Your task to perform on an android device: Add "logitech g pro" to the cart on costco.com Image 0: 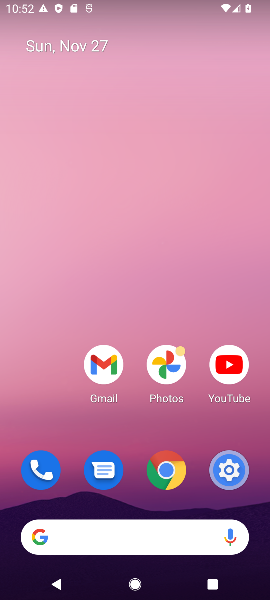
Step 0: click (113, 547)
Your task to perform on an android device: Add "logitech g pro" to the cart on costco.com Image 1: 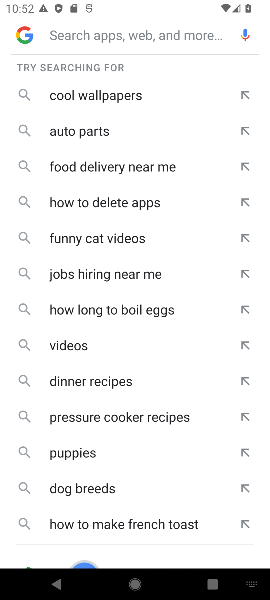
Step 1: type "costco.com"
Your task to perform on an android device: Add "logitech g pro" to the cart on costco.com Image 2: 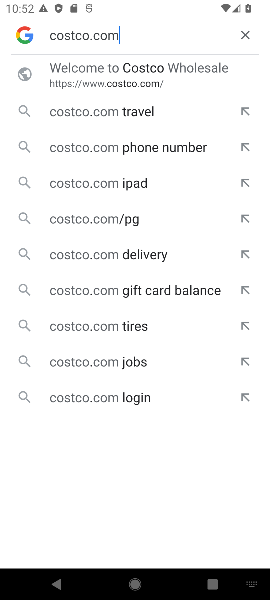
Step 2: click (113, 84)
Your task to perform on an android device: Add "logitech g pro" to the cart on costco.com Image 3: 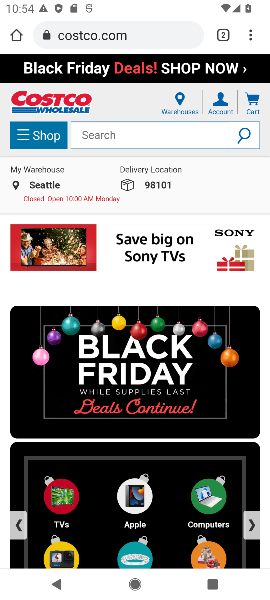
Step 3: task complete